Your task to perform on an android device: Go to battery settings Image 0: 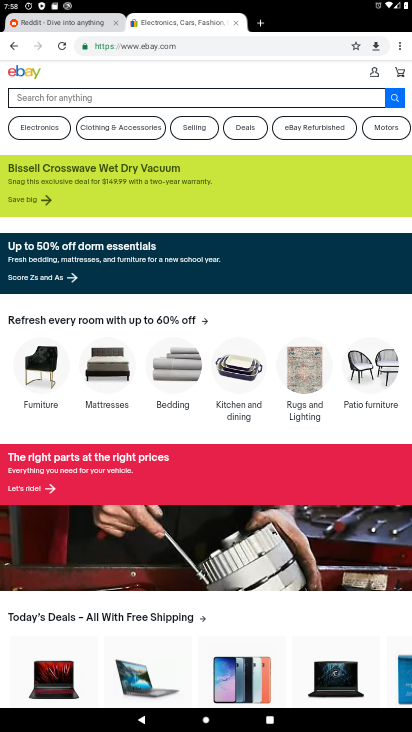
Step 0: press home button
Your task to perform on an android device: Go to battery settings Image 1: 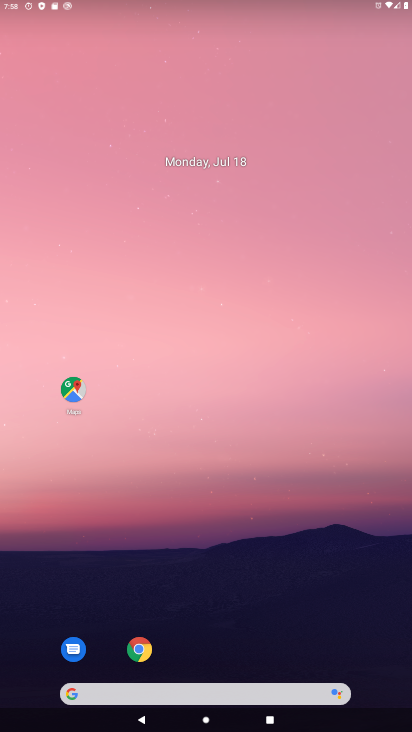
Step 1: drag from (314, 666) to (200, 156)
Your task to perform on an android device: Go to battery settings Image 2: 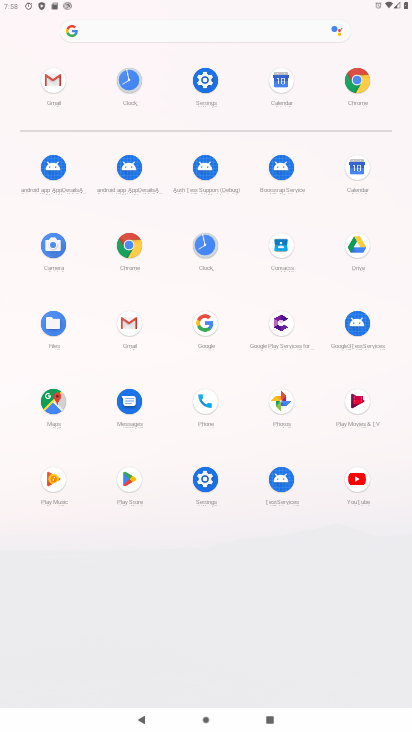
Step 2: click (200, 80)
Your task to perform on an android device: Go to battery settings Image 3: 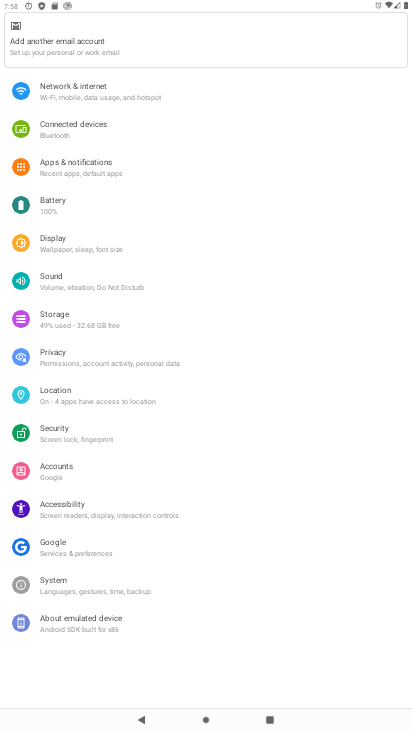
Step 3: click (52, 203)
Your task to perform on an android device: Go to battery settings Image 4: 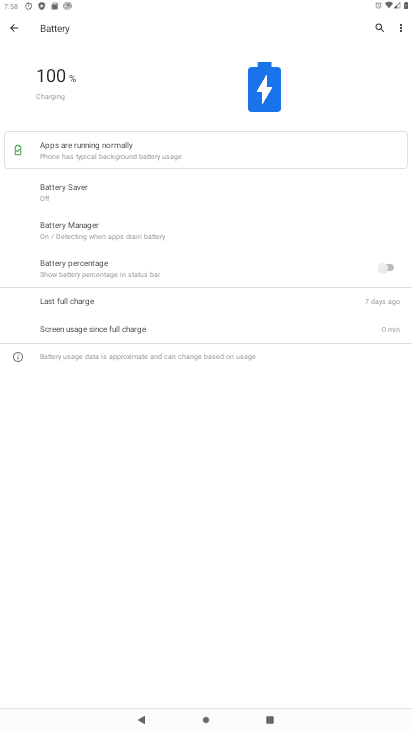
Step 4: task complete